Your task to perform on an android device: toggle location history Image 0: 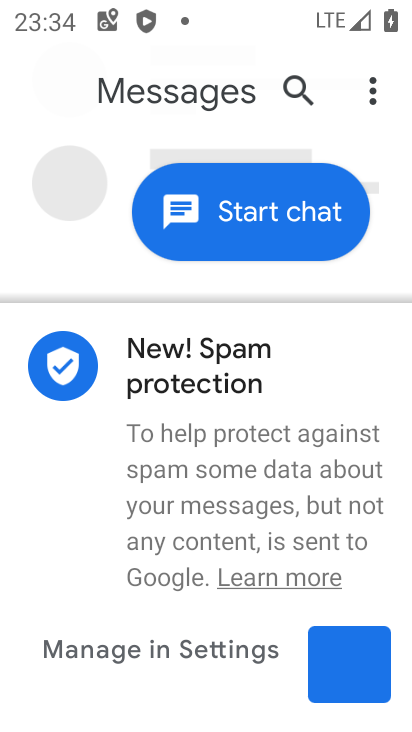
Step 0: press home button
Your task to perform on an android device: toggle location history Image 1: 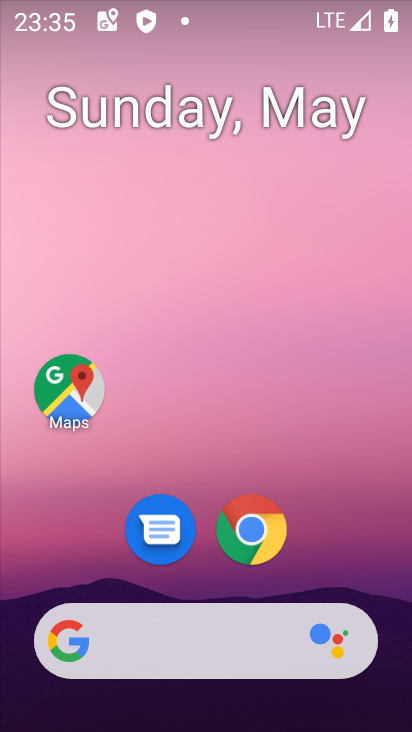
Step 1: drag from (371, 545) to (378, 139)
Your task to perform on an android device: toggle location history Image 2: 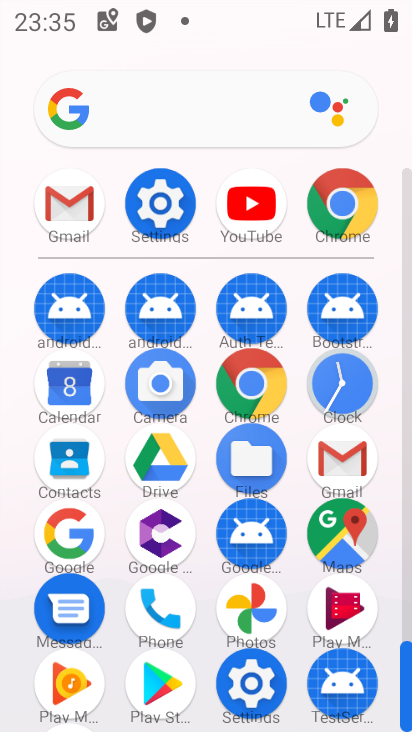
Step 2: click (149, 192)
Your task to perform on an android device: toggle location history Image 3: 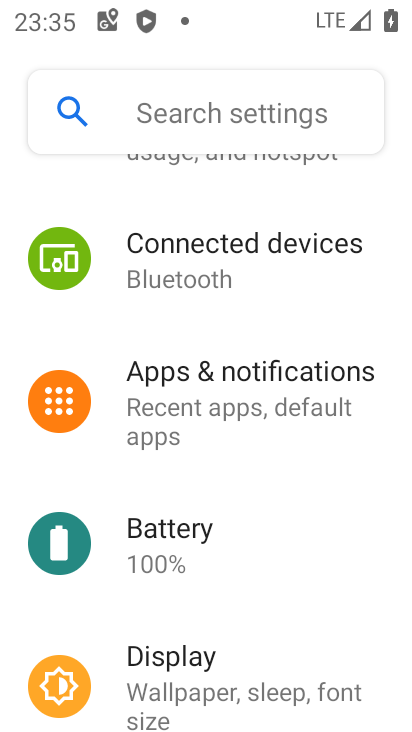
Step 3: drag from (332, 568) to (348, 305)
Your task to perform on an android device: toggle location history Image 4: 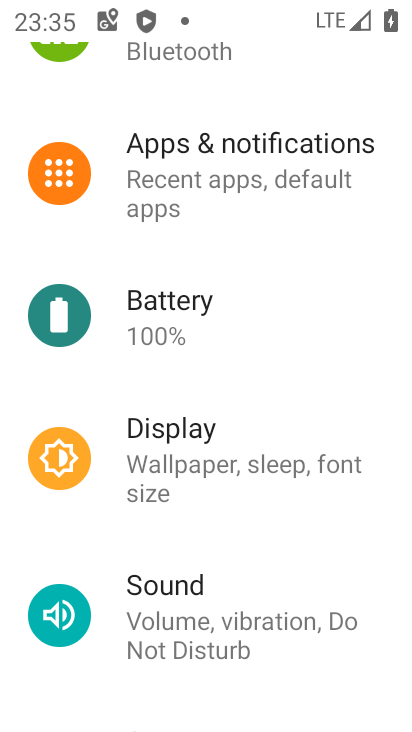
Step 4: drag from (267, 573) to (287, 267)
Your task to perform on an android device: toggle location history Image 5: 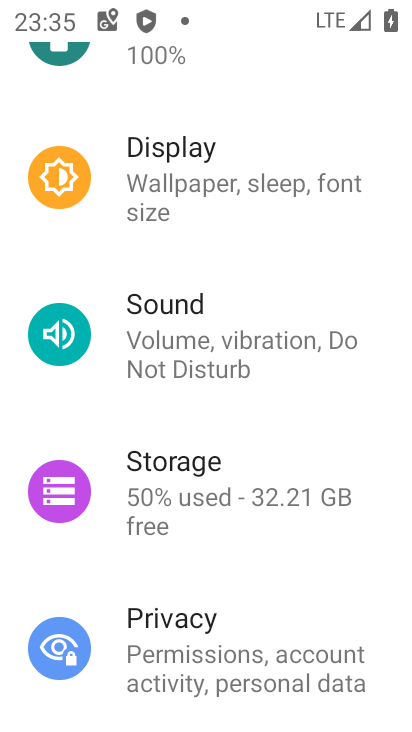
Step 5: drag from (279, 575) to (307, 269)
Your task to perform on an android device: toggle location history Image 6: 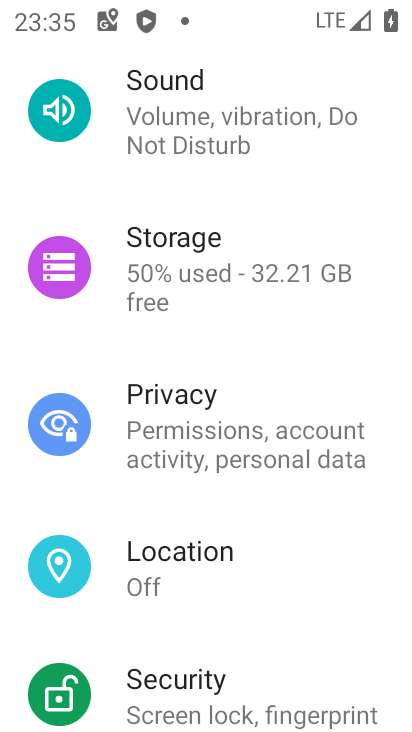
Step 6: click (237, 547)
Your task to perform on an android device: toggle location history Image 7: 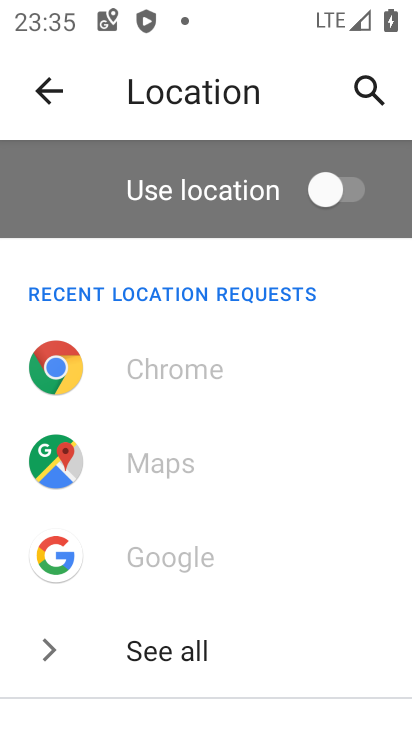
Step 7: drag from (287, 682) to (279, 325)
Your task to perform on an android device: toggle location history Image 8: 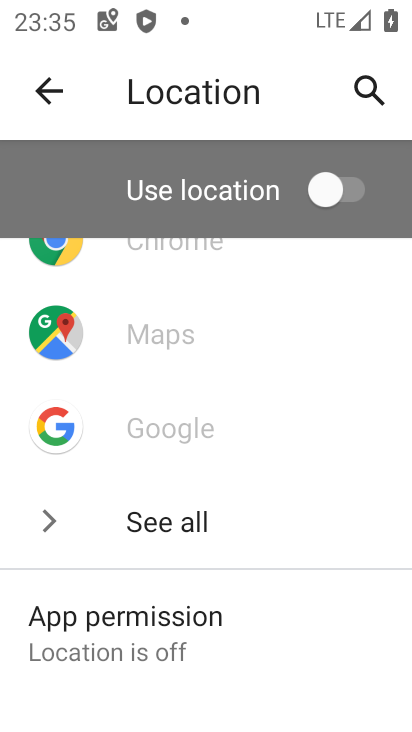
Step 8: drag from (275, 616) to (279, 296)
Your task to perform on an android device: toggle location history Image 9: 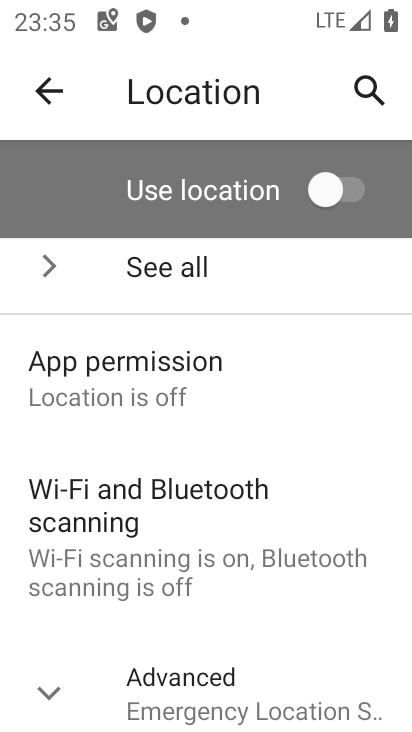
Step 9: click (272, 706)
Your task to perform on an android device: toggle location history Image 10: 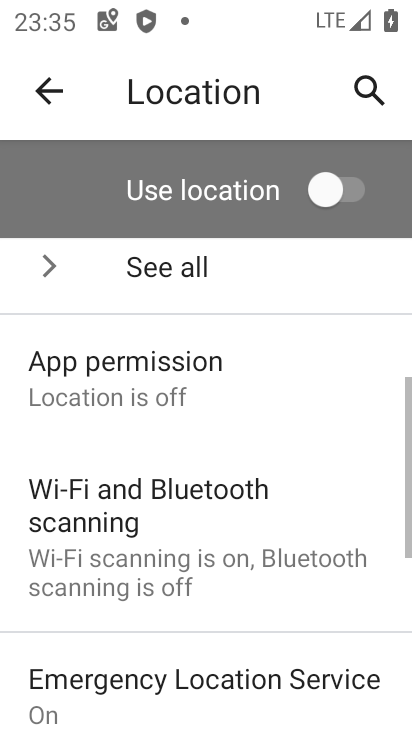
Step 10: drag from (263, 700) to (245, 310)
Your task to perform on an android device: toggle location history Image 11: 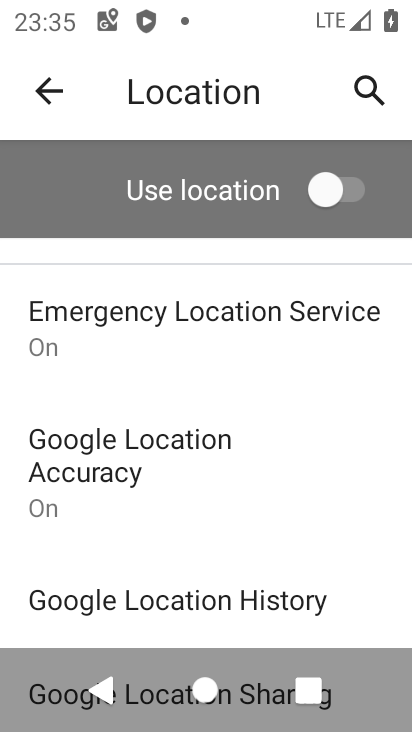
Step 11: click (205, 597)
Your task to perform on an android device: toggle location history Image 12: 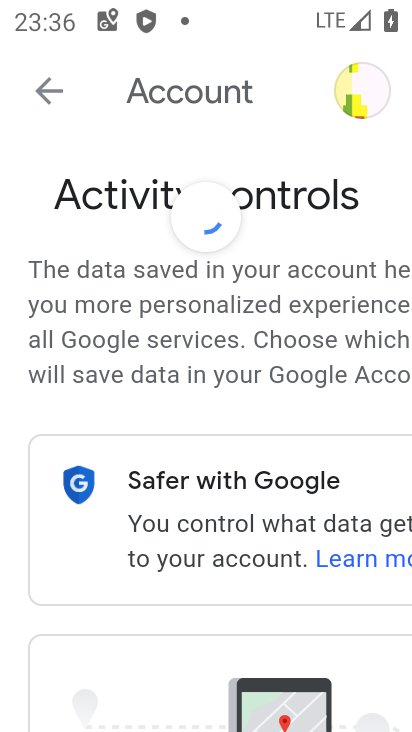
Step 12: drag from (145, 619) to (201, 250)
Your task to perform on an android device: toggle location history Image 13: 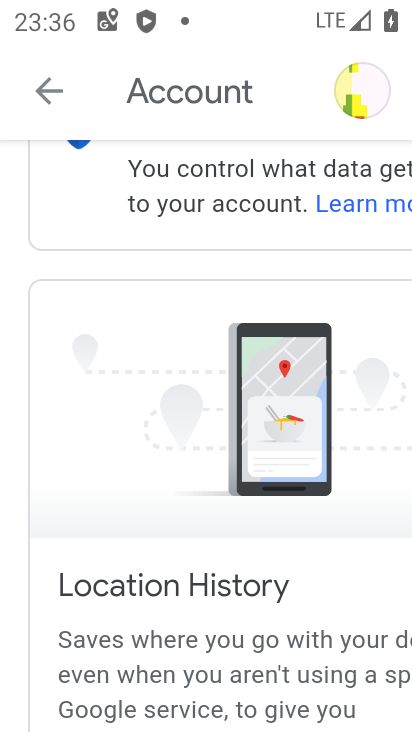
Step 13: drag from (147, 595) to (137, 152)
Your task to perform on an android device: toggle location history Image 14: 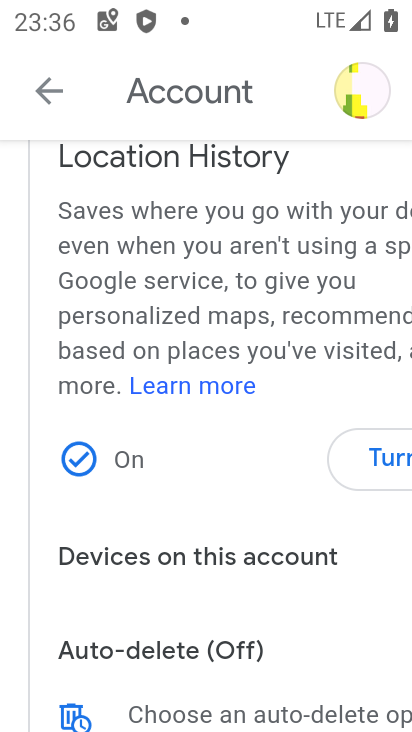
Step 14: click (396, 467)
Your task to perform on an android device: toggle location history Image 15: 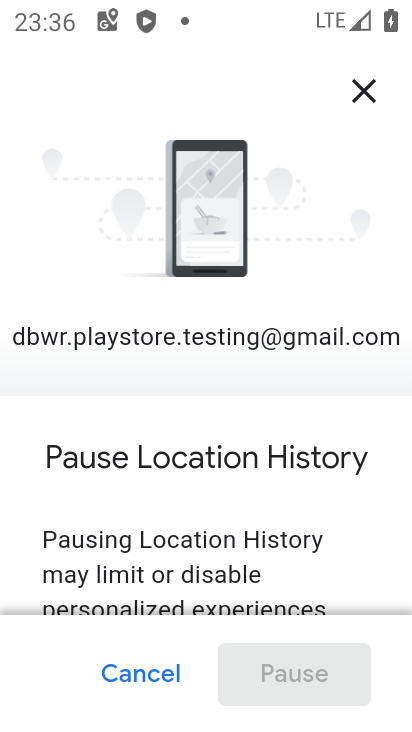
Step 15: drag from (278, 574) to (287, 135)
Your task to perform on an android device: toggle location history Image 16: 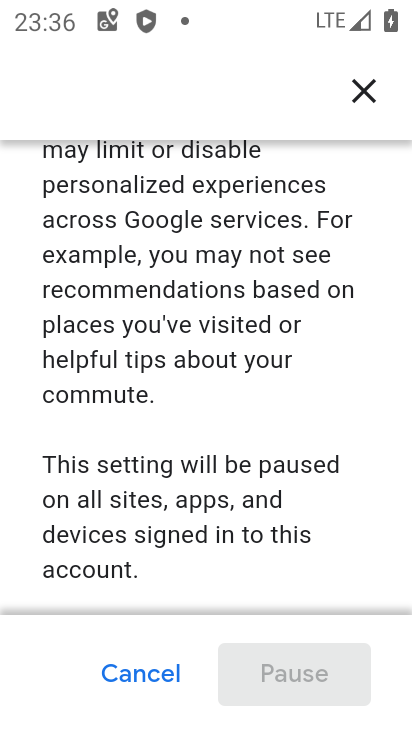
Step 16: drag from (204, 532) to (222, 170)
Your task to perform on an android device: toggle location history Image 17: 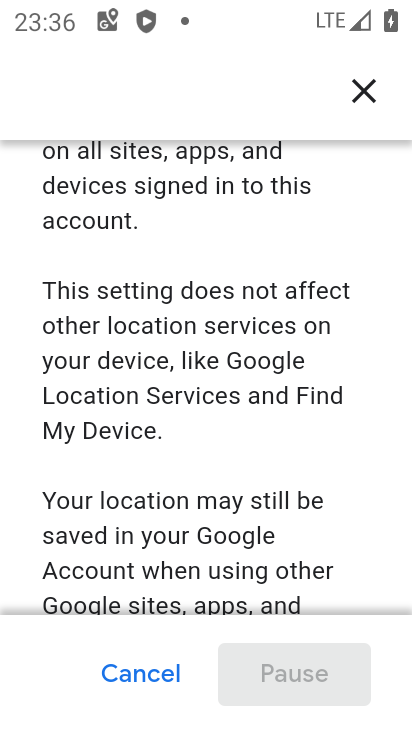
Step 17: drag from (172, 524) to (170, 101)
Your task to perform on an android device: toggle location history Image 18: 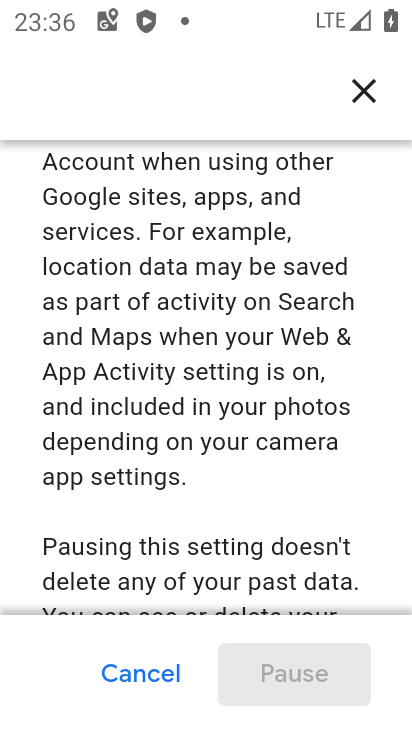
Step 18: drag from (152, 578) to (211, 134)
Your task to perform on an android device: toggle location history Image 19: 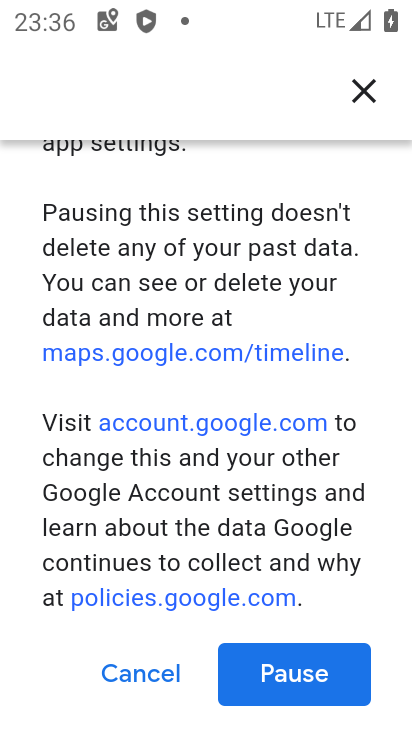
Step 19: drag from (162, 529) to (211, 179)
Your task to perform on an android device: toggle location history Image 20: 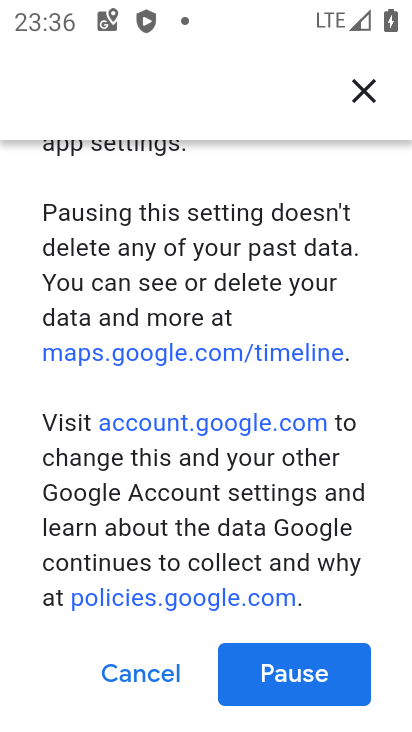
Step 20: click (272, 683)
Your task to perform on an android device: toggle location history Image 21: 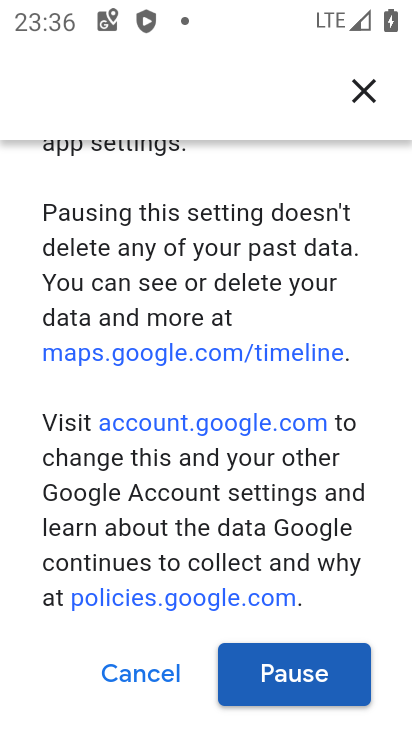
Step 21: click (312, 682)
Your task to perform on an android device: toggle location history Image 22: 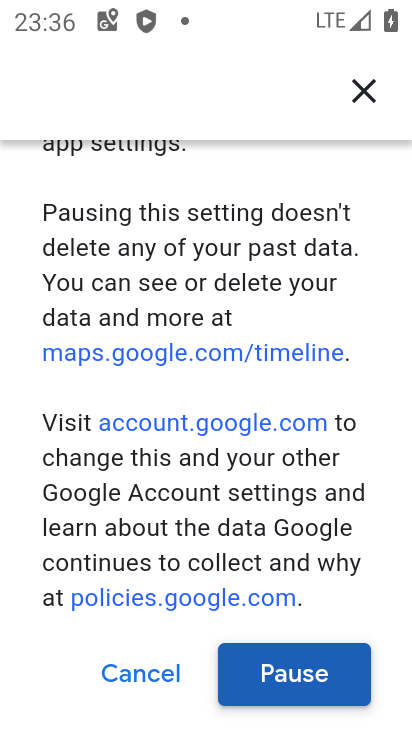
Step 22: click (313, 681)
Your task to perform on an android device: toggle location history Image 23: 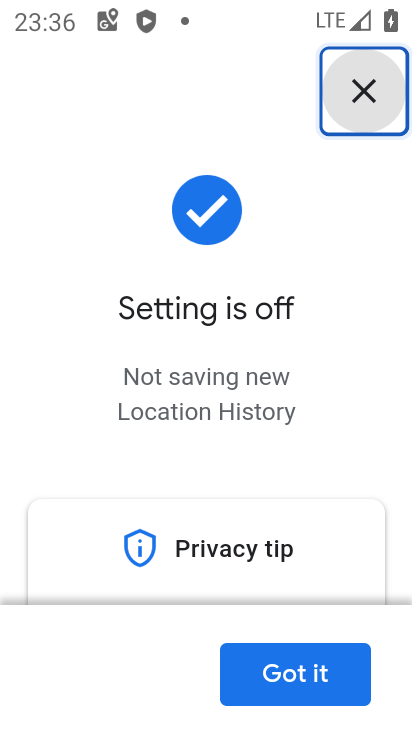
Step 23: task complete